Your task to perform on an android device: toggle show notifications on the lock screen Image 0: 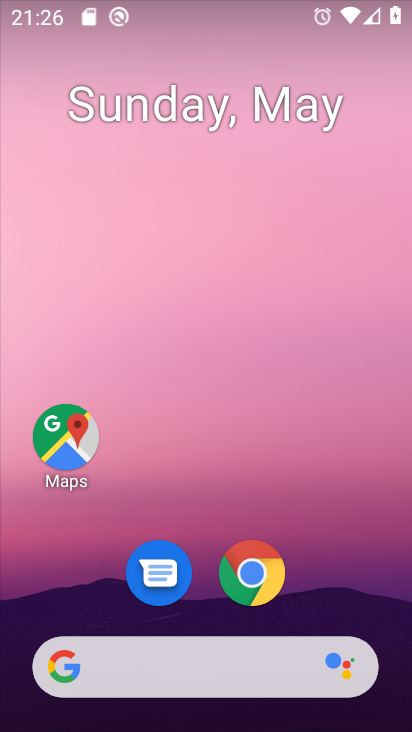
Step 0: drag from (219, 498) to (210, 23)
Your task to perform on an android device: toggle show notifications on the lock screen Image 1: 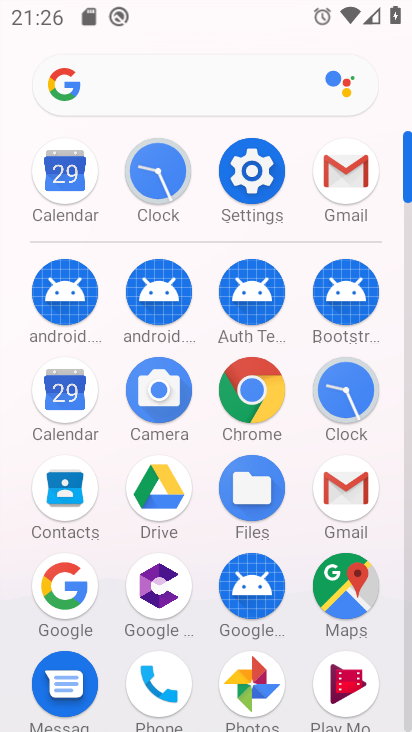
Step 1: click (255, 155)
Your task to perform on an android device: toggle show notifications on the lock screen Image 2: 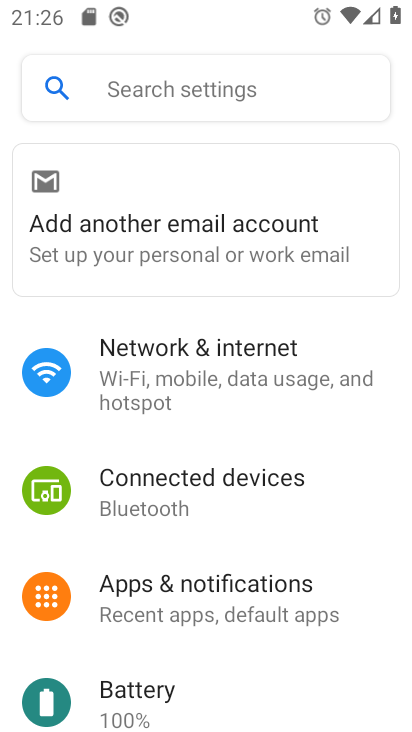
Step 2: click (230, 580)
Your task to perform on an android device: toggle show notifications on the lock screen Image 3: 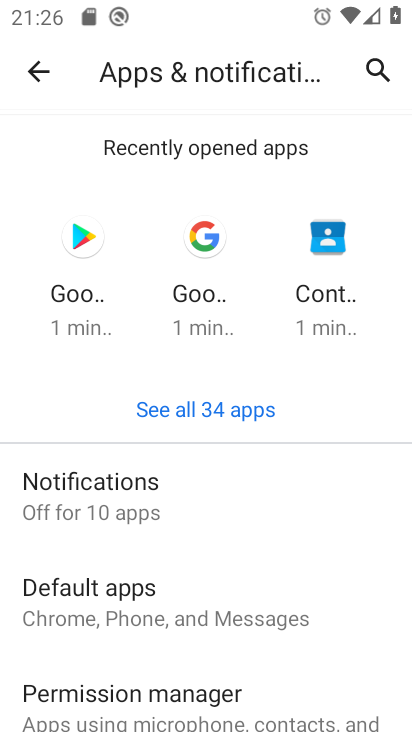
Step 3: click (154, 507)
Your task to perform on an android device: toggle show notifications on the lock screen Image 4: 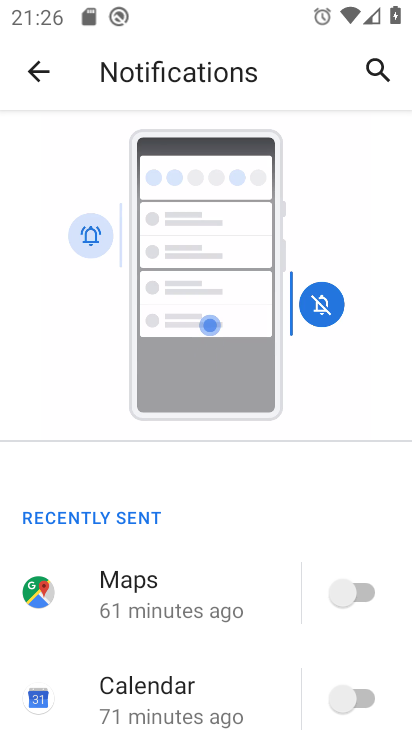
Step 4: drag from (266, 649) to (270, 59)
Your task to perform on an android device: toggle show notifications on the lock screen Image 5: 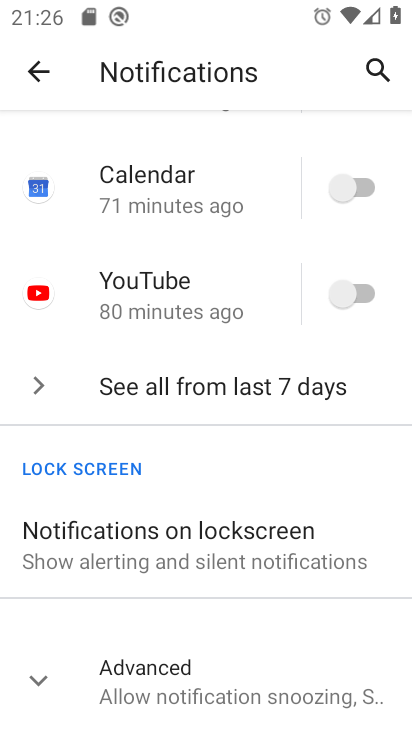
Step 5: click (252, 532)
Your task to perform on an android device: toggle show notifications on the lock screen Image 6: 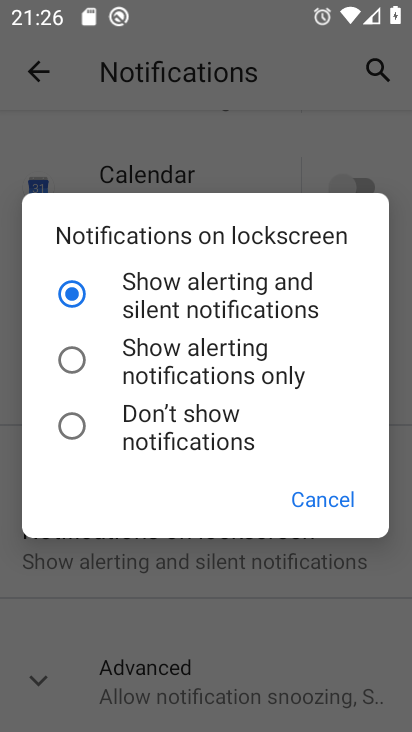
Step 6: click (83, 419)
Your task to perform on an android device: toggle show notifications on the lock screen Image 7: 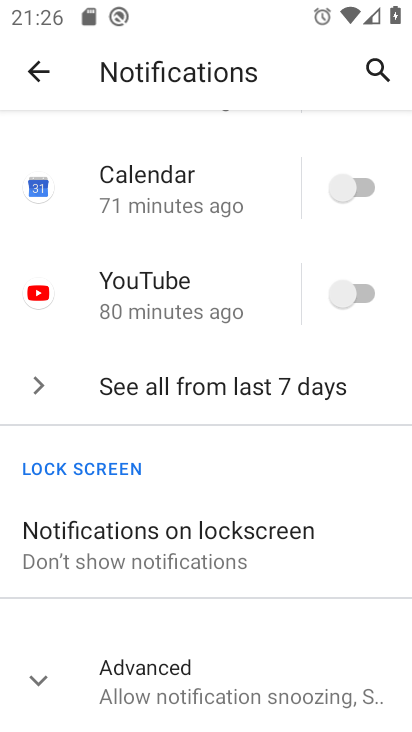
Step 7: task complete